Your task to perform on an android device: What is the recent news? Image 0: 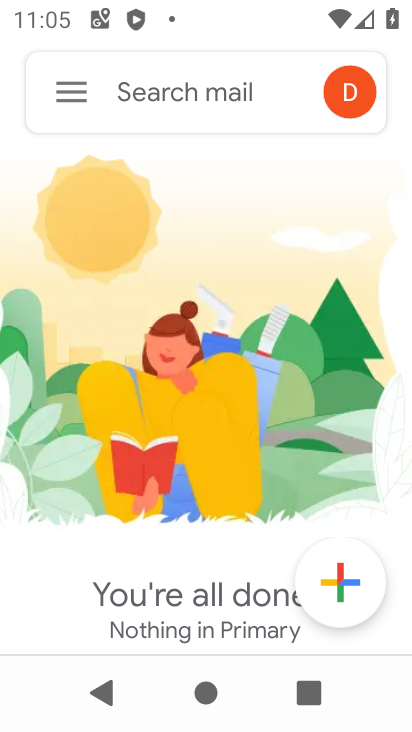
Step 0: press home button
Your task to perform on an android device: What is the recent news? Image 1: 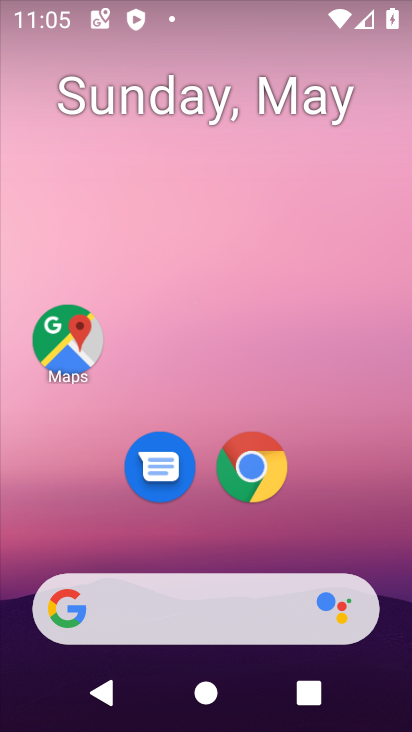
Step 1: click (130, 610)
Your task to perform on an android device: What is the recent news? Image 2: 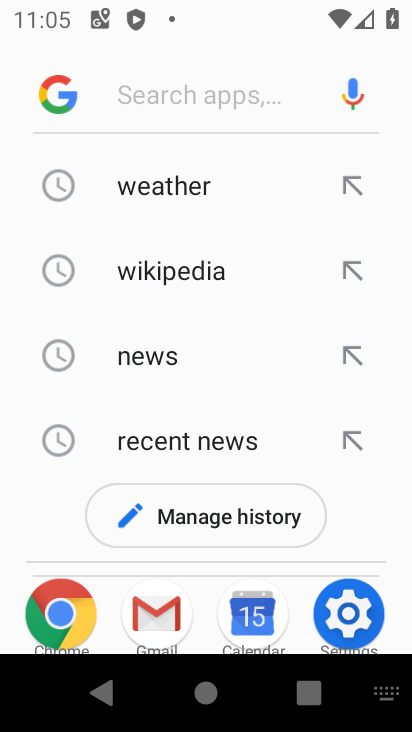
Step 2: click (178, 442)
Your task to perform on an android device: What is the recent news? Image 3: 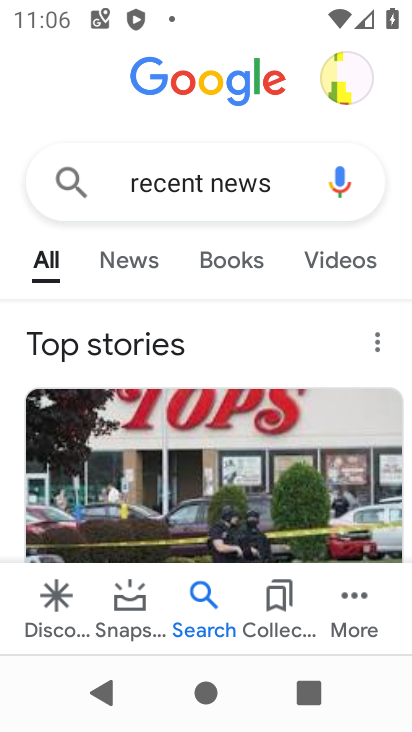
Step 3: drag from (167, 416) to (171, 255)
Your task to perform on an android device: What is the recent news? Image 4: 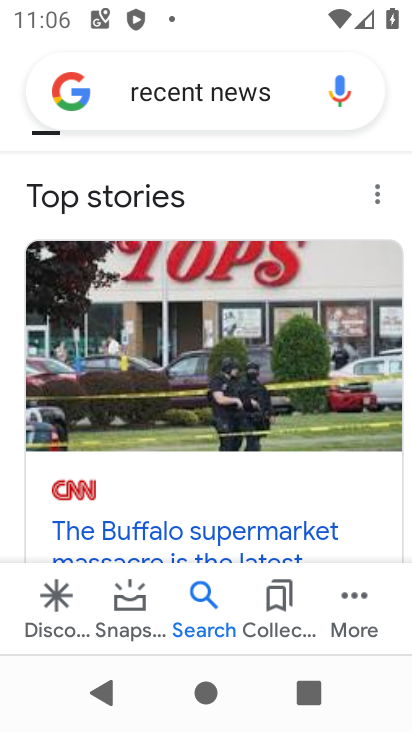
Step 4: click (135, 266)
Your task to perform on an android device: What is the recent news? Image 5: 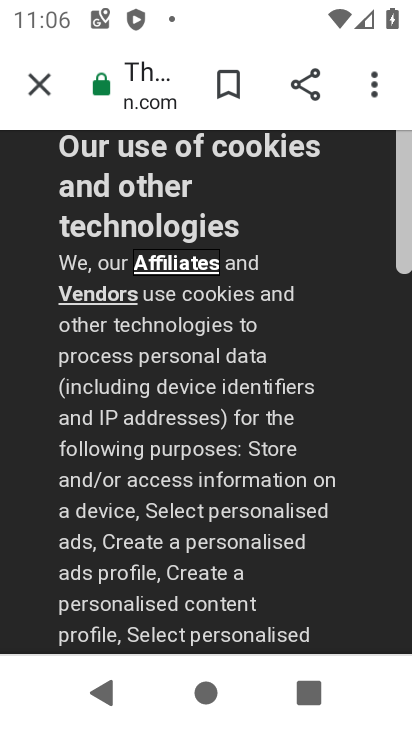
Step 5: click (30, 91)
Your task to perform on an android device: What is the recent news? Image 6: 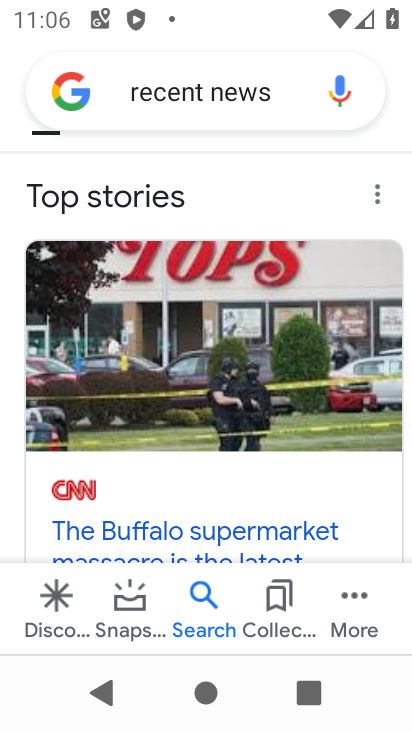
Step 6: drag from (175, 345) to (159, 91)
Your task to perform on an android device: What is the recent news? Image 7: 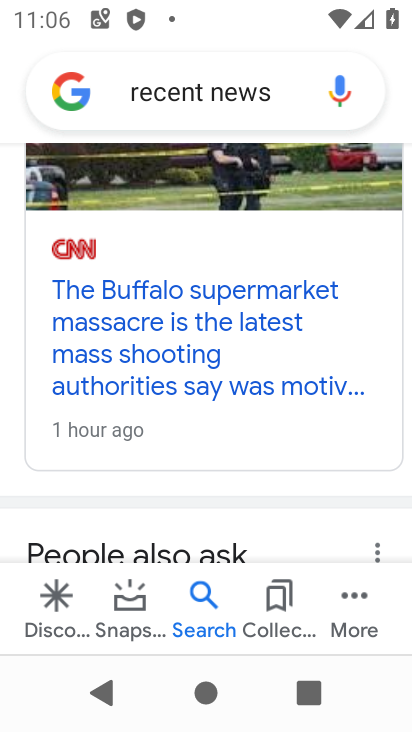
Step 7: click (170, 364)
Your task to perform on an android device: What is the recent news? Image 8: 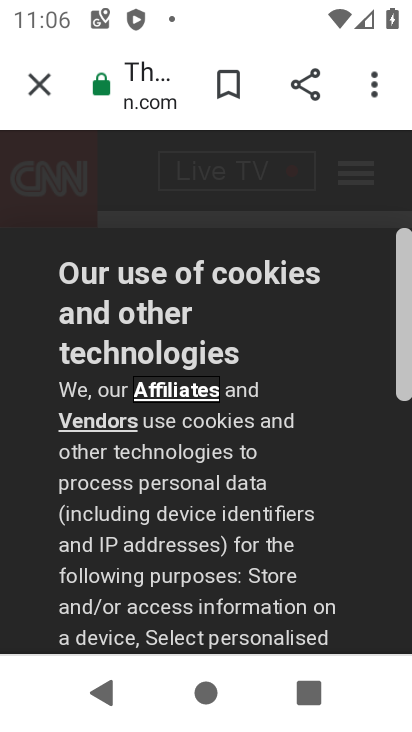
Step 8: task complete